Your task to perform on an android device: refresh tabs in the chrome app Image 0: 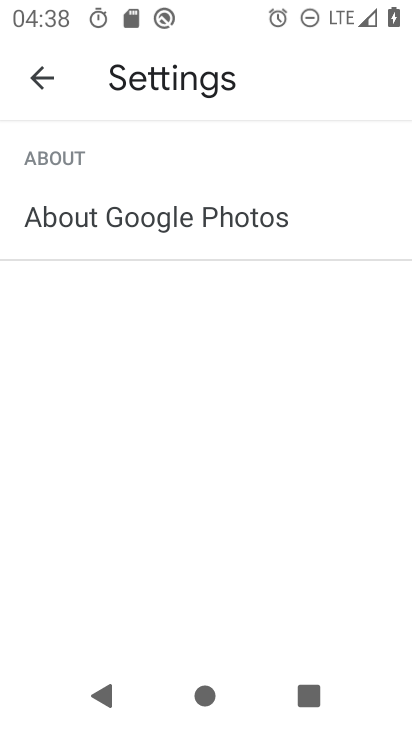
Step 0: press back button
Your task to perform on an android device: refresh tabs in the chrome app Image 1: 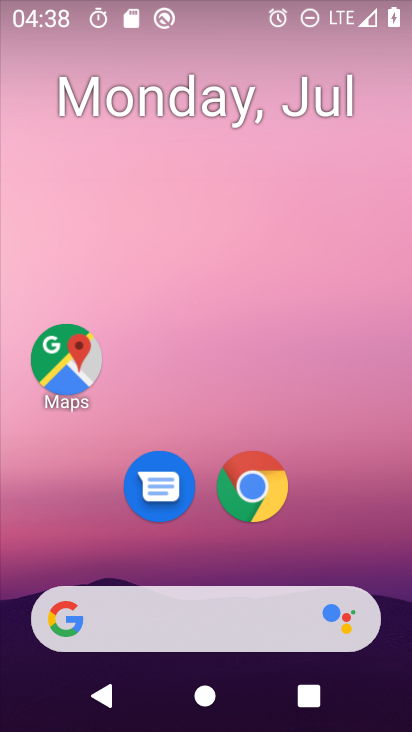
Step 1: click (261, 483)
Your task to perform on an android device: refresh tabs in the chrome app Image 2: 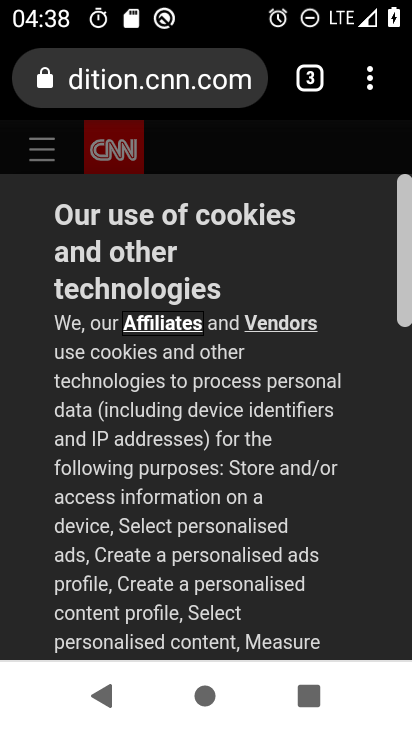
Step 2: click (366, 71)
Your task to perform on an android device: refresh tabs in the chrome app Image 3: 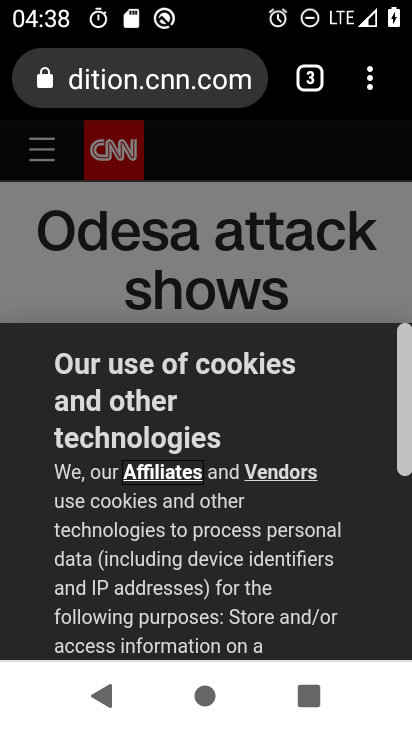
Step 3: task complete